Your task to perform on an android device: check data usage Image 0: 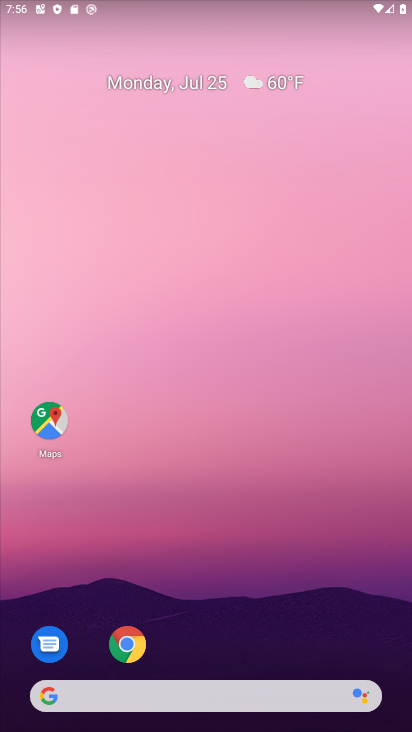
Step 0: drag from (256, 506) to (259, 105)
Your task to perform on an android device: check data usage Image 1: 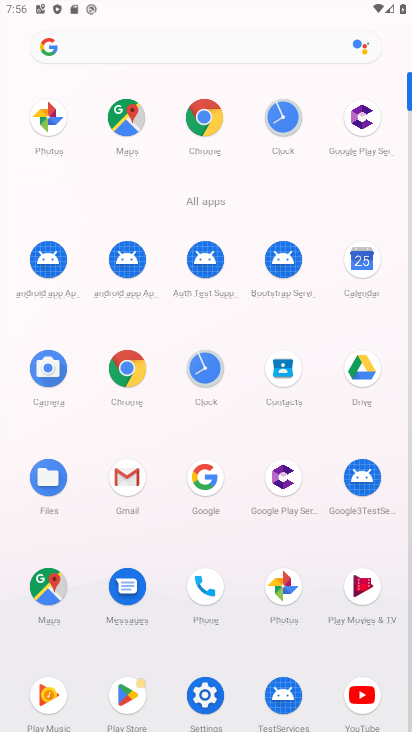
Step 1: click (208, 685)
Your task to perform on an android device: check data usage Image 2: 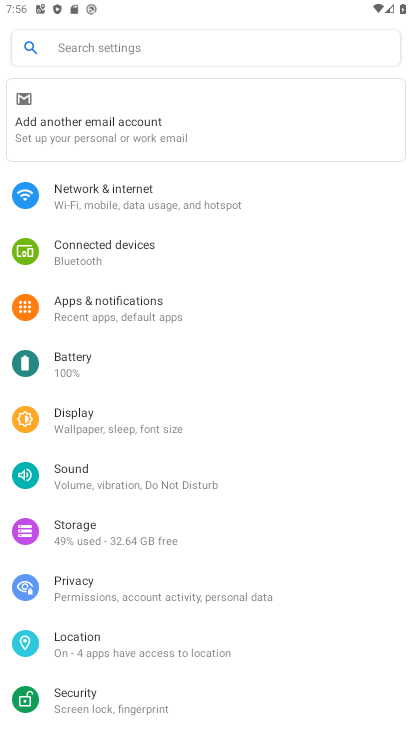
Step 2: click (130, 195)
Your task to perform on an android device: check data usage Image 3: 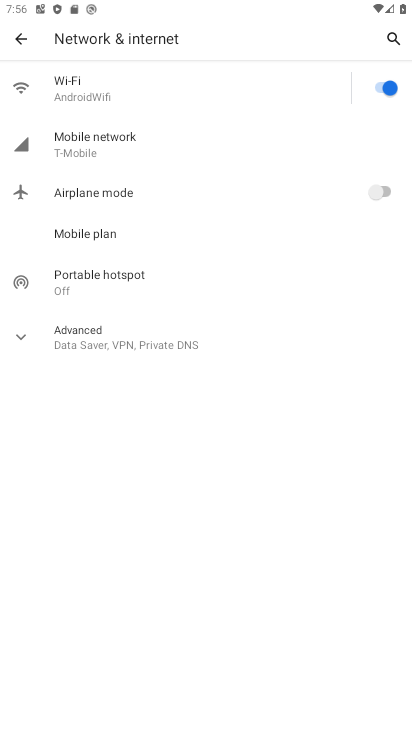
Step 3: task complete